Your task to perform on an android device: Add usb-b to the cart on costco, then select checkout. Image 0: 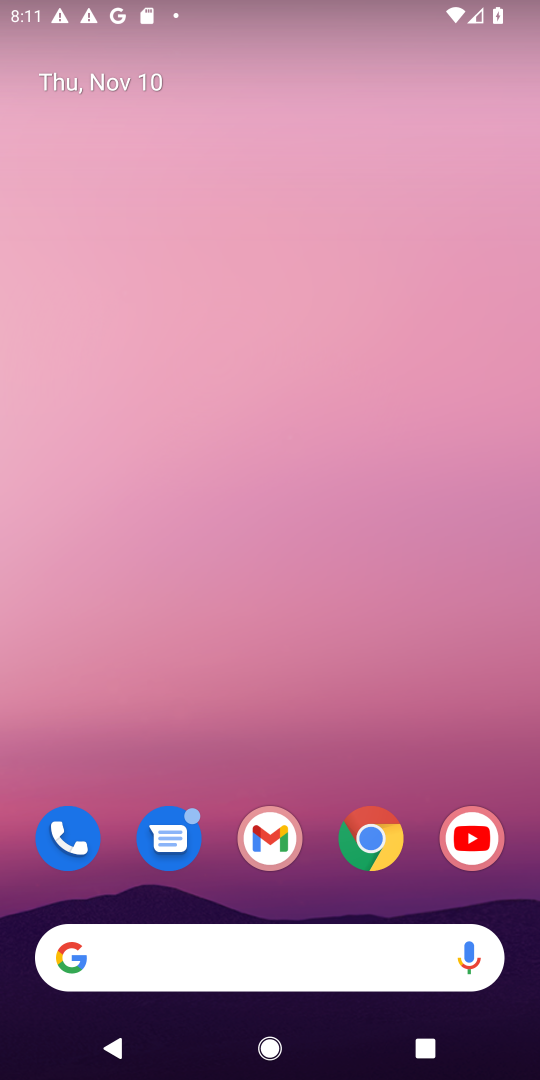
Step 0: drag from (314, 858) to (276, 9)
Your task to perform on an android device: Add usb-b to the cart on costco, then select checkout. Image 1: 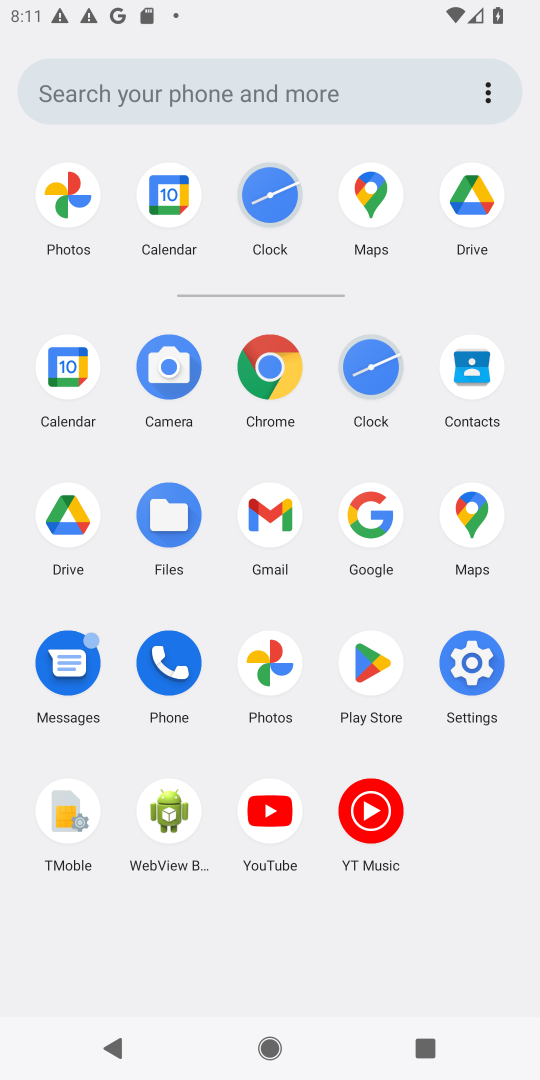
Step 1: click (258, 372)
Your task to perform on an android device: Add usb-b to the cart on costco, then select checkout. Image 2: 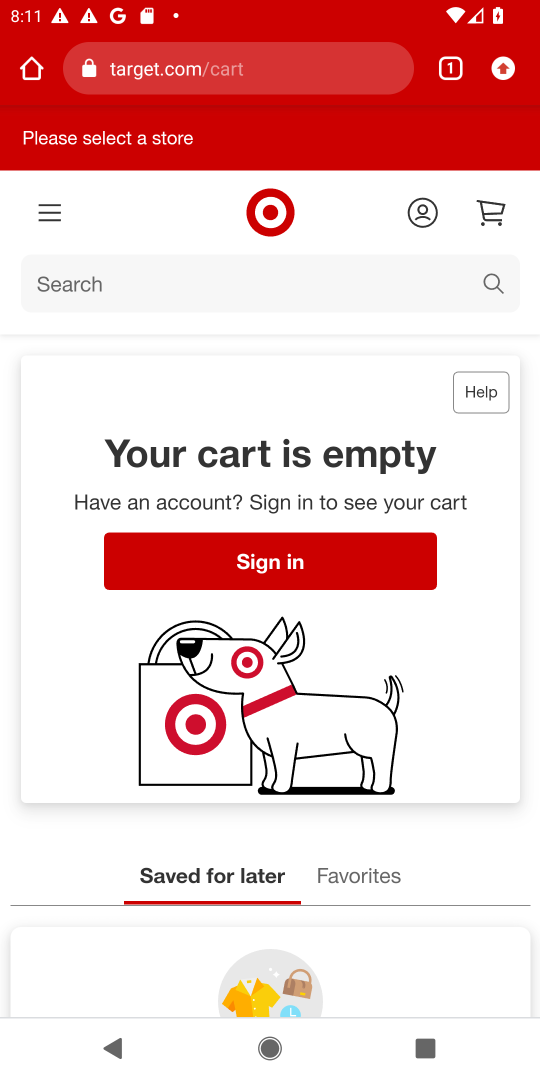
Step 2: click (255, 57)
Your task to perform on an android device: Add usb-b to the cart on costco, then select checkout. Image 3: 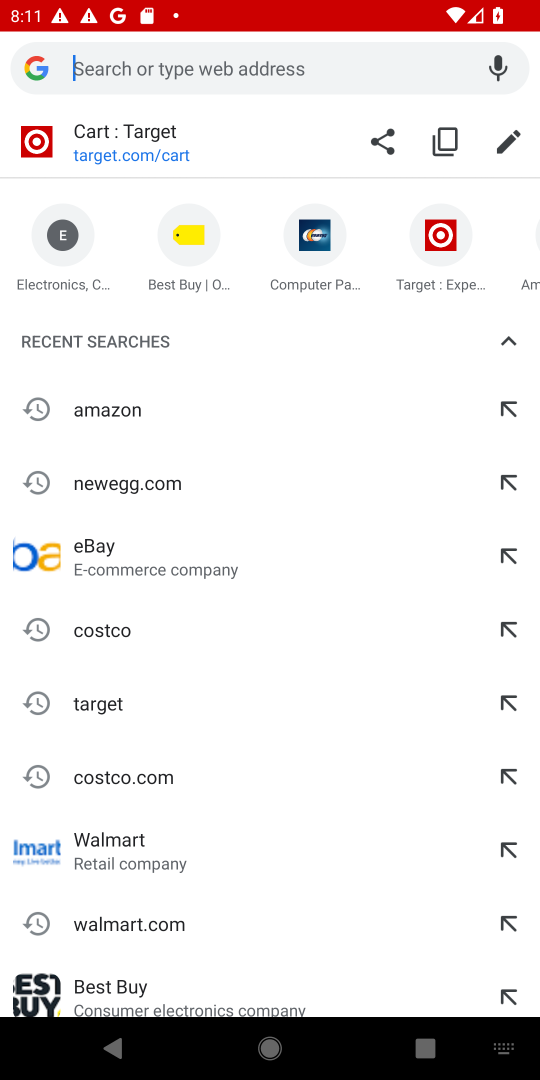
Step 3: type "costco.com"
Your task to perform on an android device: Add usb-b to the cart on costco, then select checkout. Image 4: 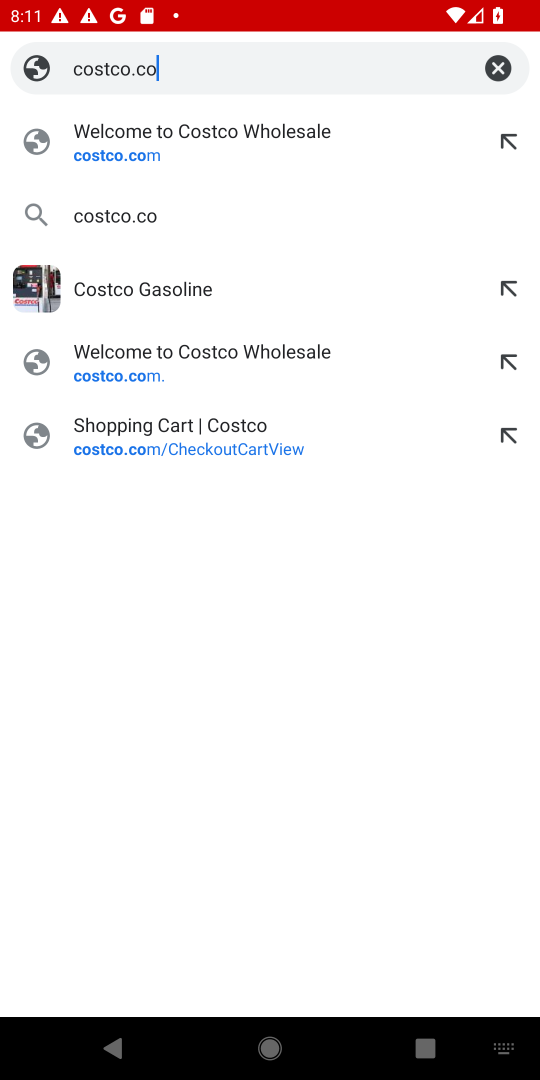
Step 4: press enter
Your task to perform on an android device: Add usb-b to the cart on costco, then select checkout. Image 5: 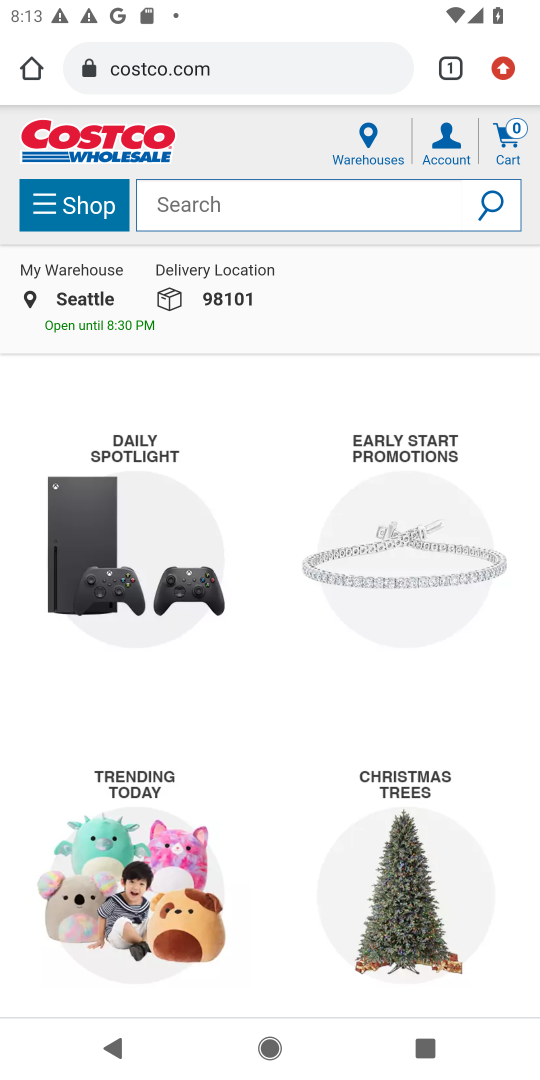
Step 5: click (286, 209)
Your task to perform on an android device: Add usb-b to the cart on costco, then select checkout. Image 6: 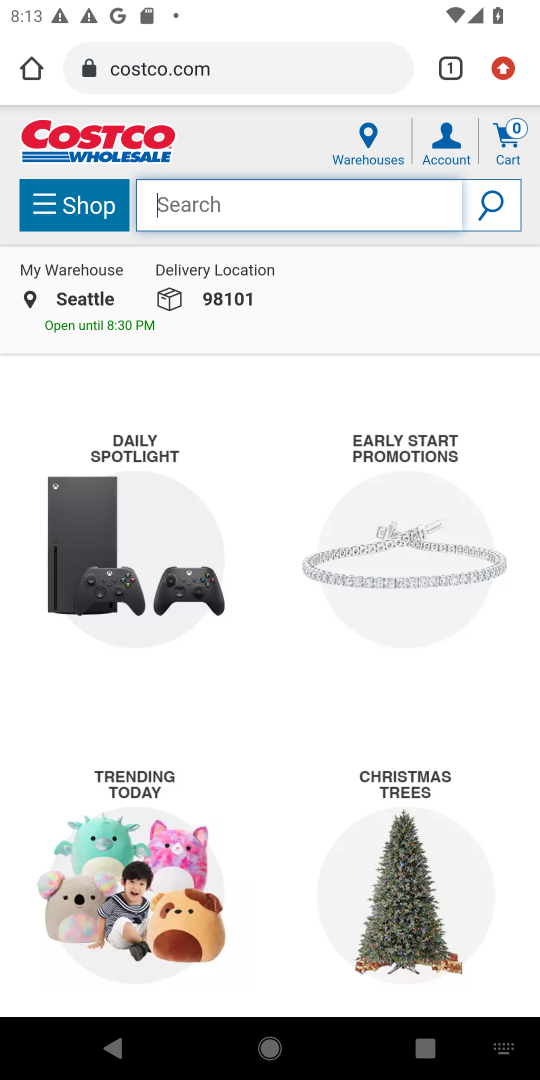
Step 6: type "usb-b"
Your task to perform on an android device: Add usb-b to the cart on costco, then select checkout. Image 7: 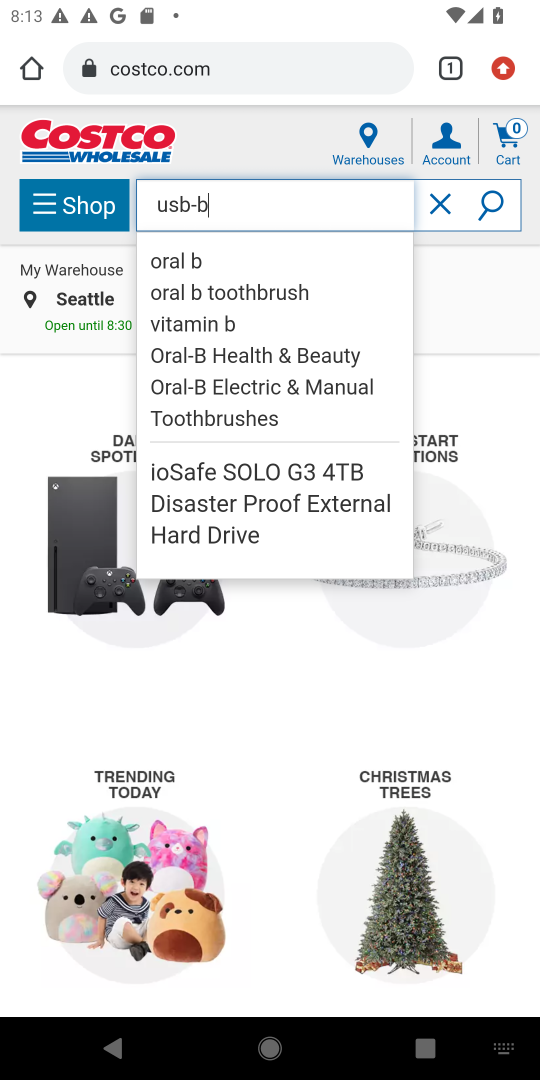
Step 7: press enter
Your task to perform on an android device: Add usb-b to the cart on costco, then select checkout. Image 8: 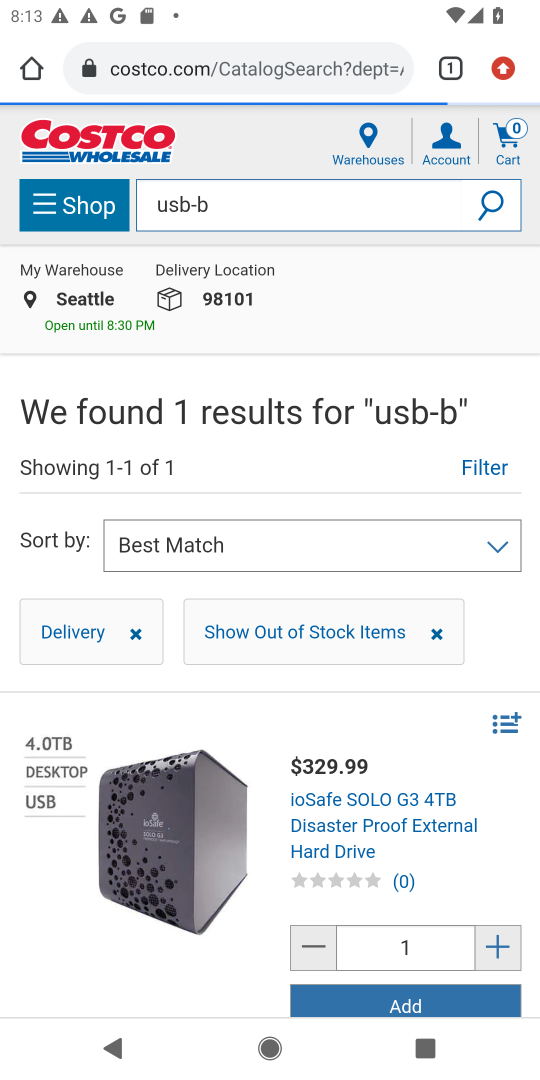
Step 8: drag from (438, 881) to (334, 836)
Your task to perform on an android device: Add usb-b to the cart on costco, then select checkout. Image 9: 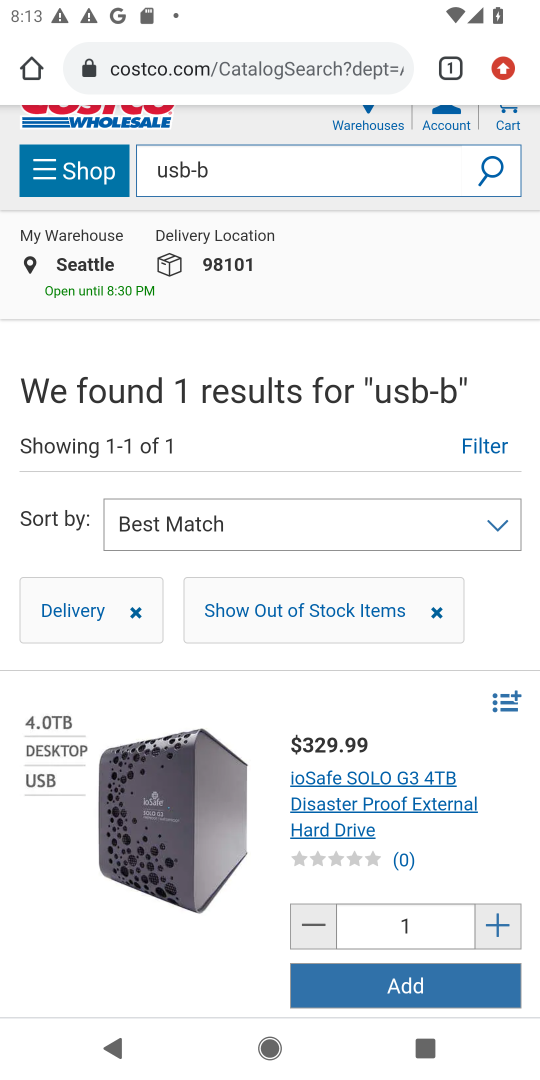
Step 9: click (360, 798)
Your task to perform on an android device: Add usb-b to the cart on costco, then select checkout. Image 10: 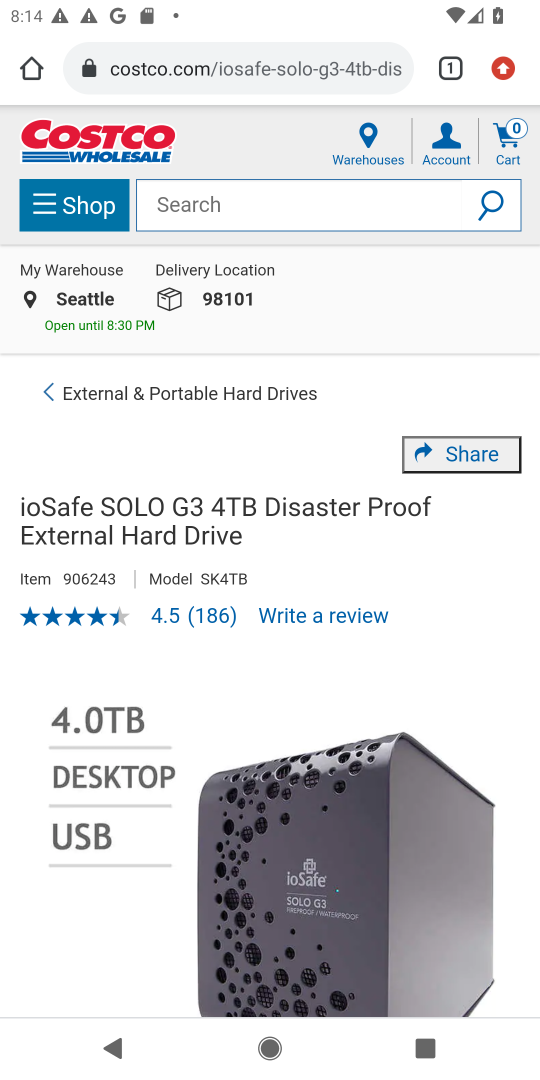
Step 10: task complete